Your task to perform on an android device: Open Yahoo.com Image 0: 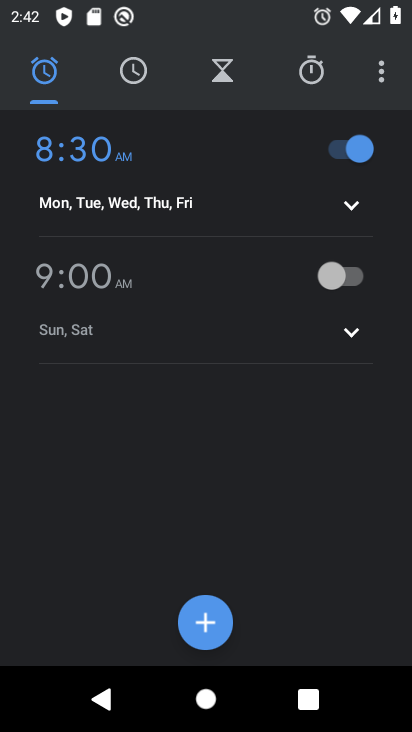
Step 0: press home button
Your task to perform on an android device: Open Yahoo.com Image 1: 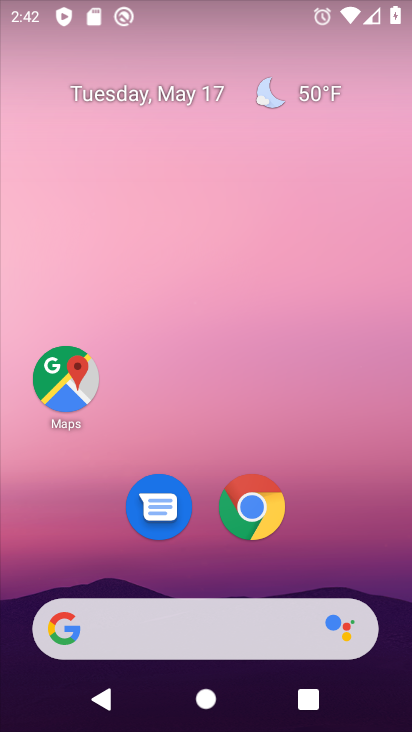
Step 1: click (253, 513)
Your task to perform on an android device: Open Yahoo.com Image 2: 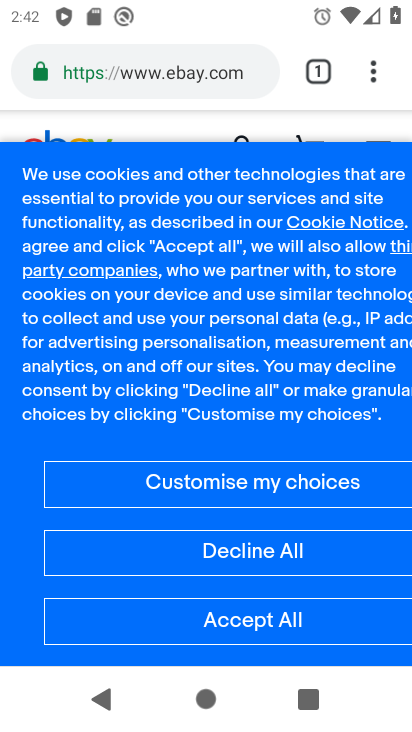
Step 2: click (315, 71)
Your task to perform on an android device: Open Yahoo.com Image 3: 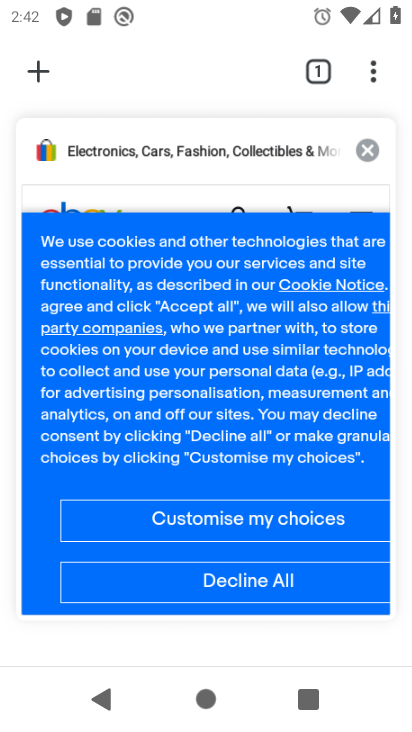
Step 3: click (24, 67)
Your task to perform on an android device: Open Yahoo.com Image 4: 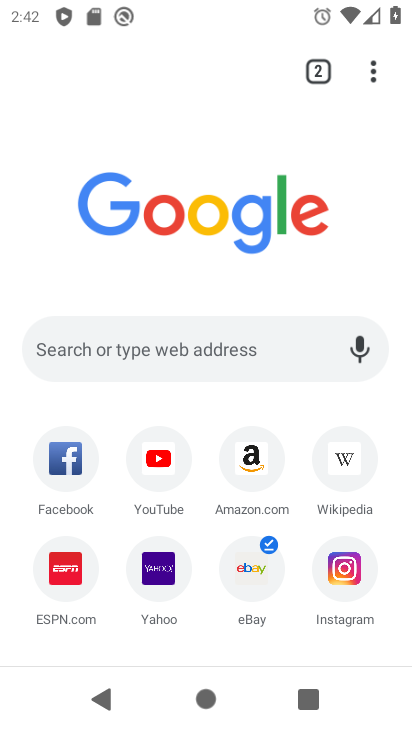
Step 4: click (160, 571)
Your task to perform on an android device: Open Yahoo.com Image 5: 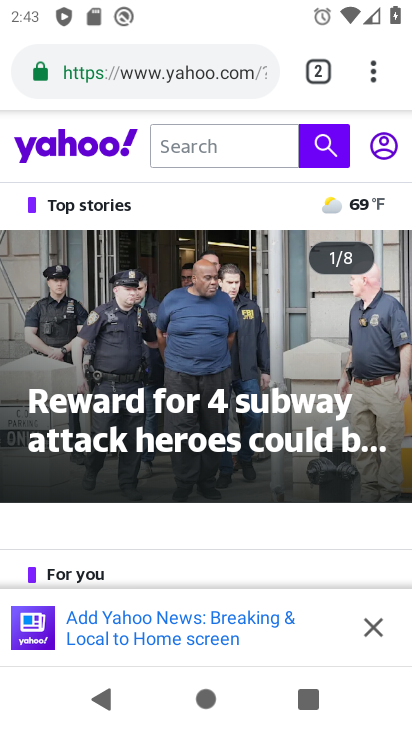
Step 5: task complete